Your task to perform on an android device: set the stopwatch Image 0: 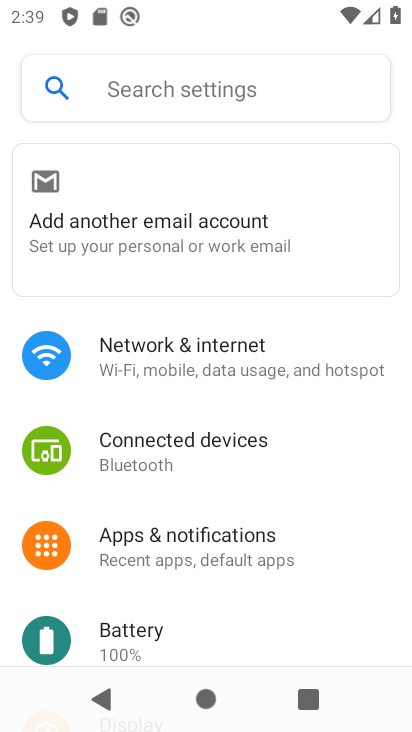
Step 0: press home button
Your task to perform on an android device: set the stopwatch Image 1: 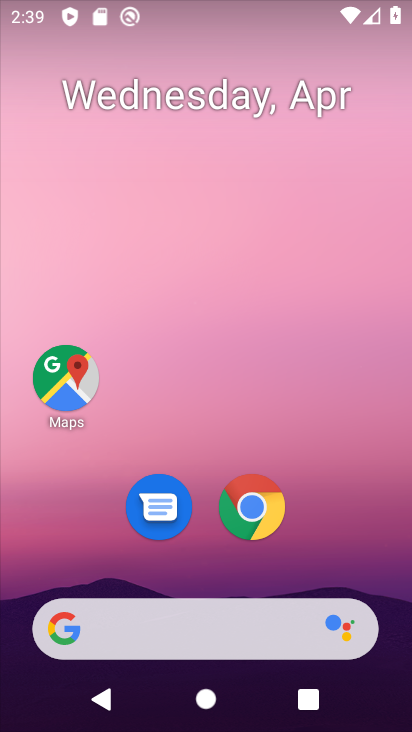
Step 1: drag from (195, 603) to (276, 52)
Your task to perform on an android device: set the stopwatch Image 2: 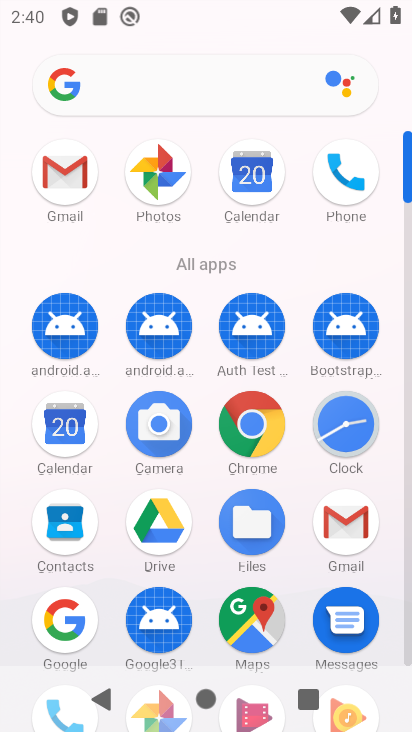
Step 2: click (364, 437)
Your task to perform on an android device: set the stopwatch Image 3: 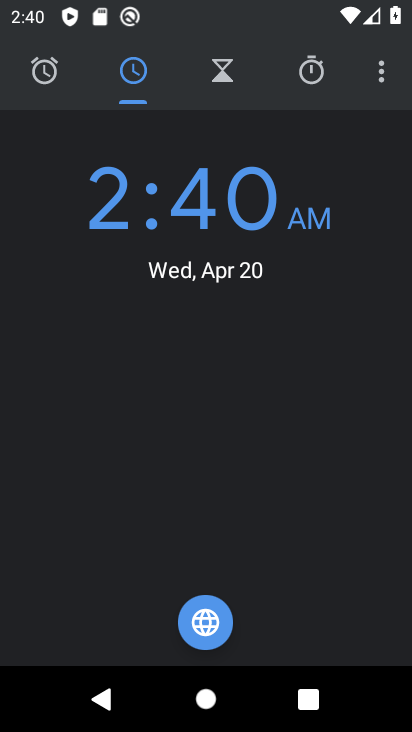
Step 3: click (297, 77)
Your task to perform on an android device: set the stopwatch Image 4: 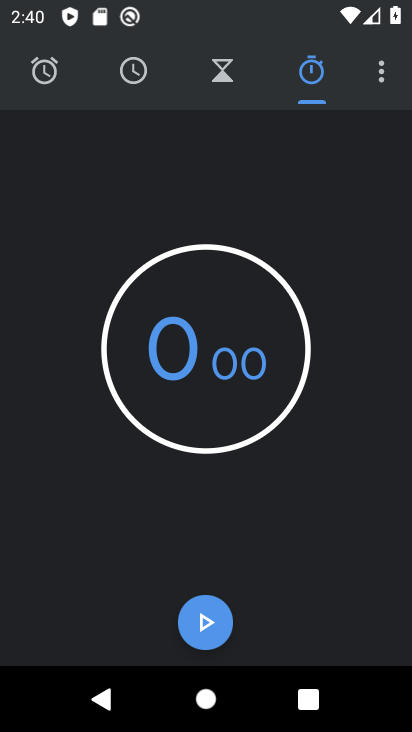
Step 4: click (227, 627)
Your task to perform on an android device: set the stopwatch Image 5: 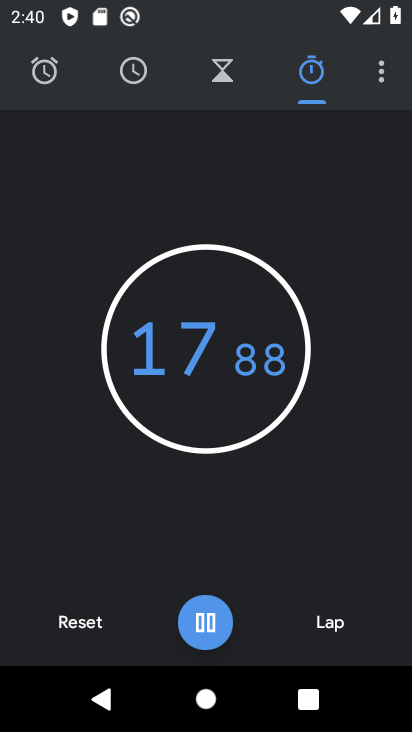
Step 5: click (189, 627)
Your task to perform on an android device: set the stopwatch Image 6: 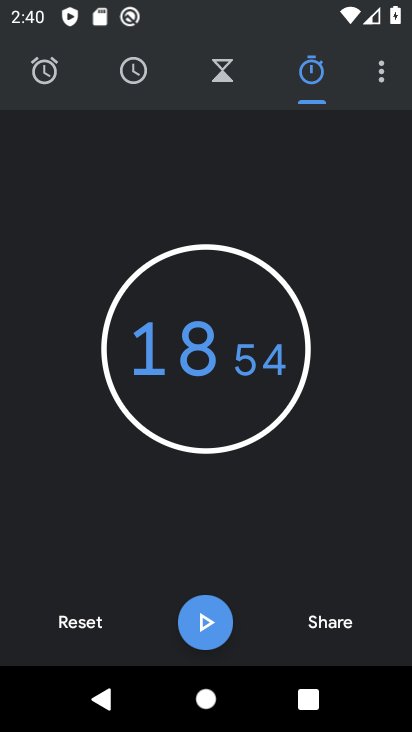
Step 6: task complete